Your task to perform on an android device: Go to Google Image 0: 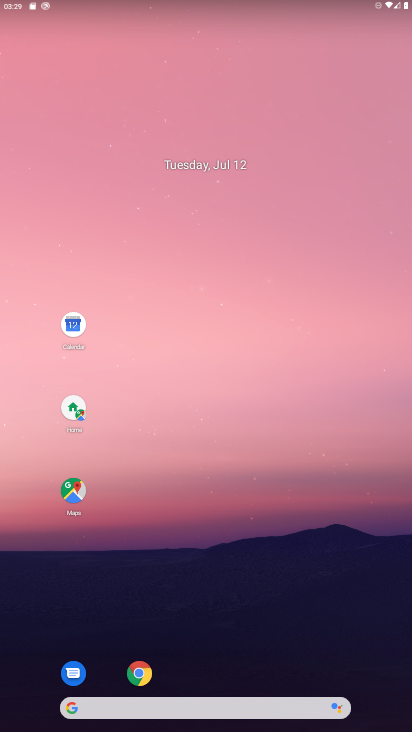
Step 0: drag from (219, 679) to (232, 249)
Your task to perform on an android device: Go to Google Image 1: 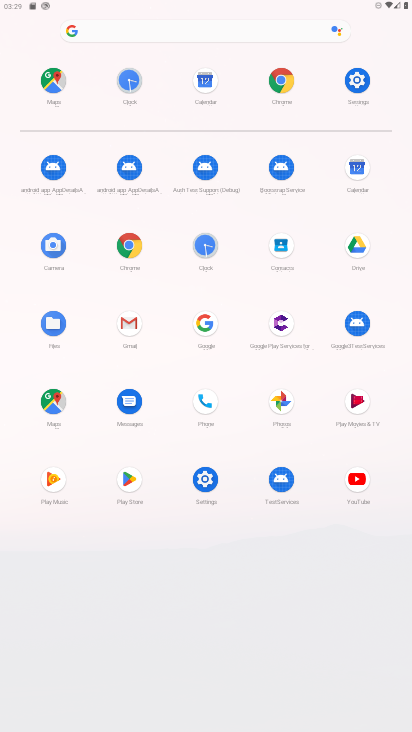
Step 1: click (209, 315)
Your task to perform on an android device: Go to Google Image 2: 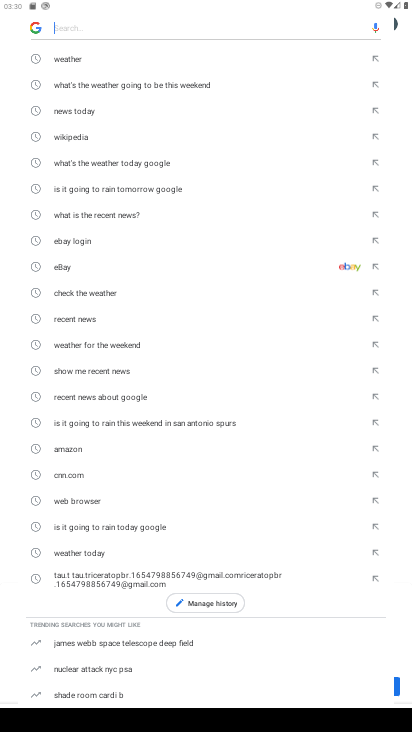
Step 2: task complete